Your task to perform on an android device: Go to settings Image 0: 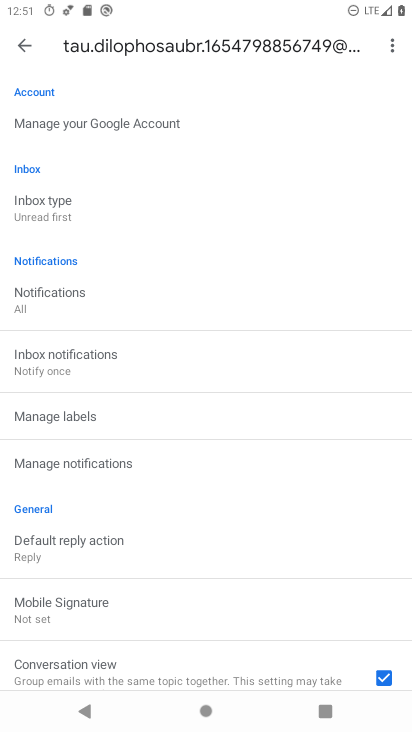
Step 0: press home button
Your task to perform on an android device: Go to settings Image 1: 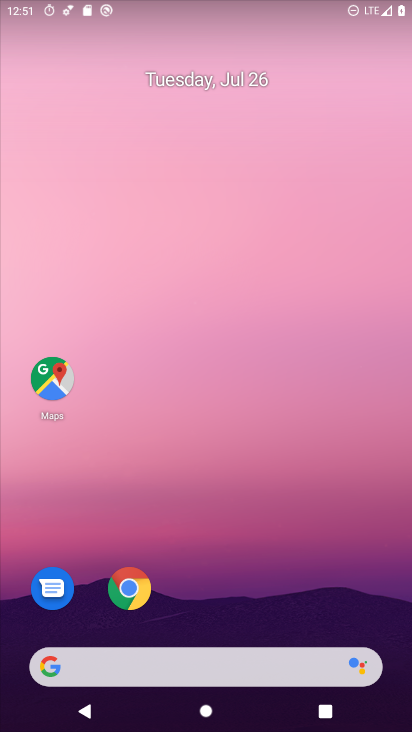
Step 1: drag from (247, 620) to (251, 147)
Your task to perform on an android device: Go to settings Image 2: 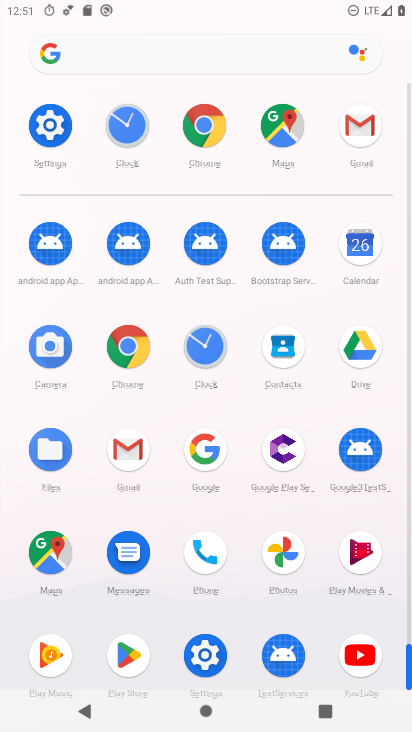
Step 2: click (209, 663)
Your task to perform on an android device: Go to settings Image 3: 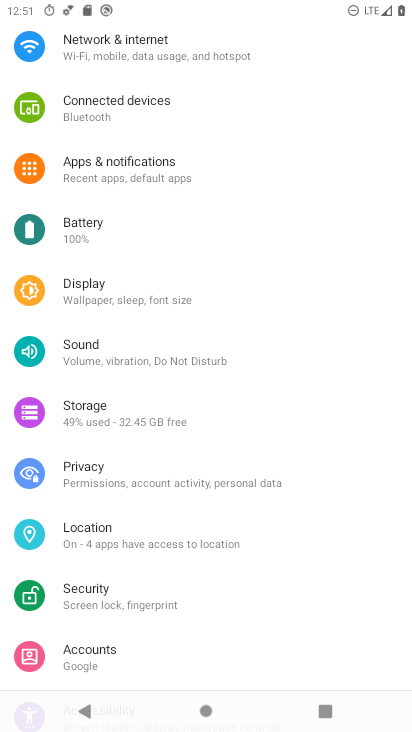
Step 3: task complete